Your task to perform on an android device: turn on bluetooth scan Image 0: 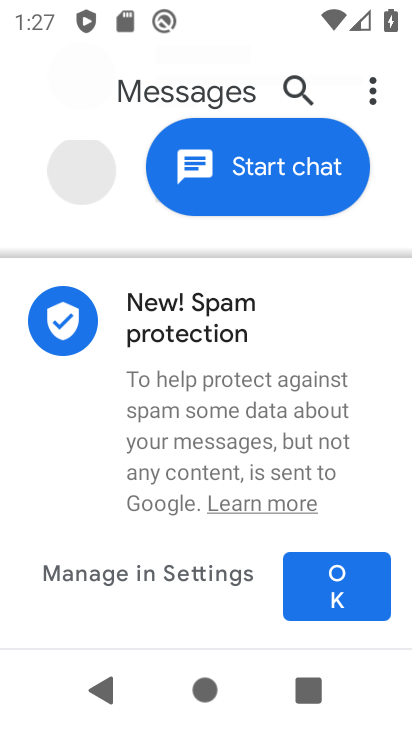
Step 0: press home button
Your task to perform on an android device: turn on bluetooth scan Image 1: 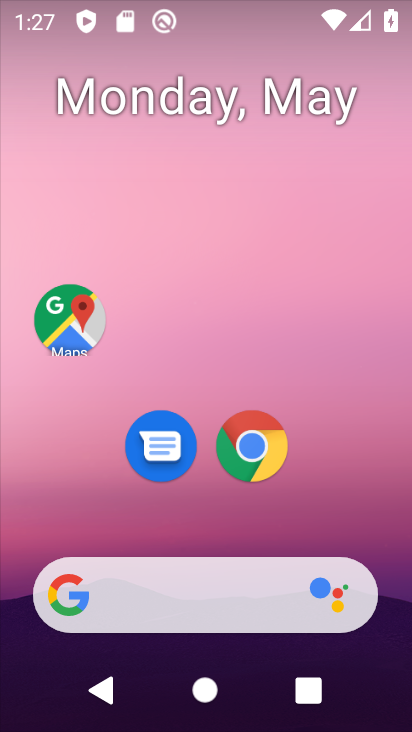
Step 1: drag from (217, 605) to (218, 143)
Your task to perform on an android device: turn on bluetooth scan Image 2: 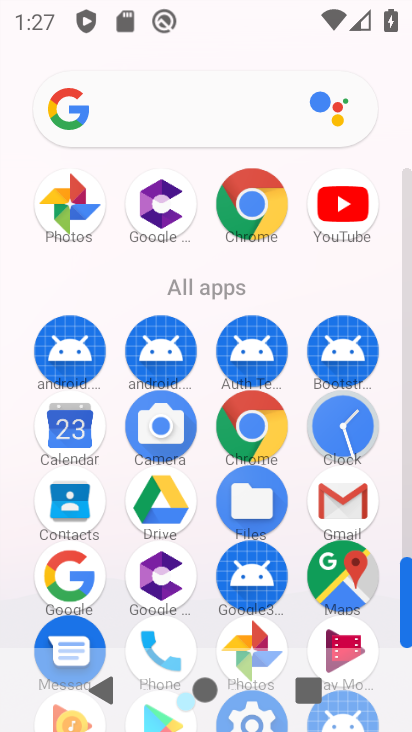
Step 2: drag from (252, 484) to (270, 198)
Your task to perform on an android device: turn on bluetooth scan Image 3: 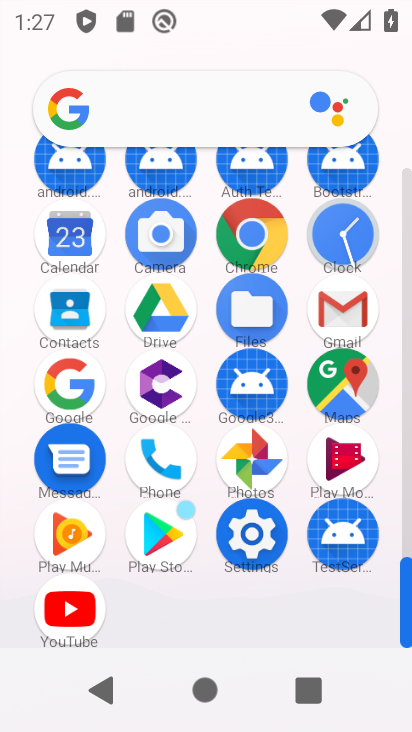
Step 3: click (260, 542)
Your task to perform on an android device: turn on bluetooth scan Image 4: 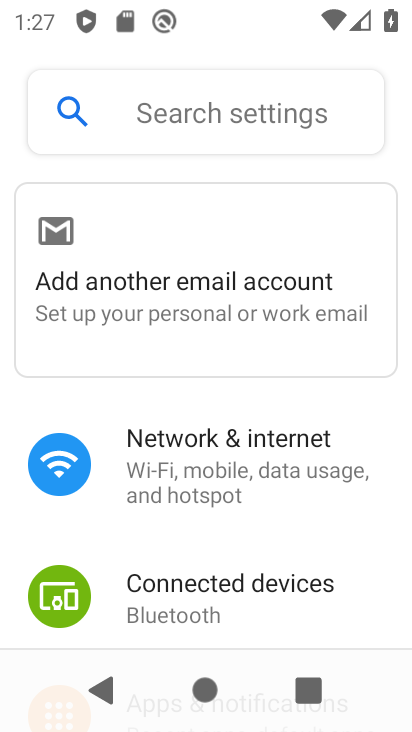
Step 4: drag from (221, 591) to (186, 135)
Your task to perform on an android device: turn on bluetooth scan Image 5: 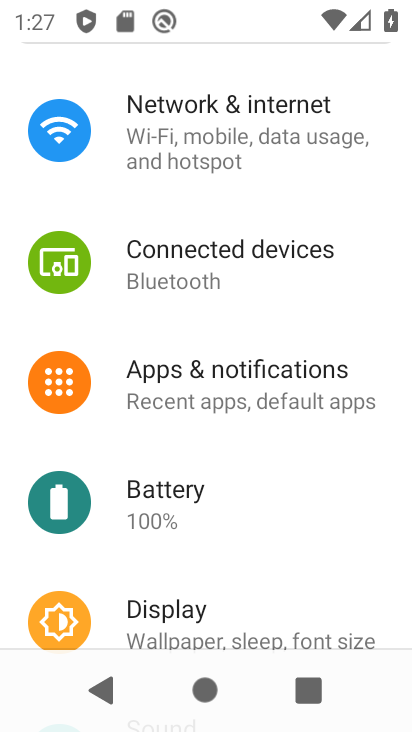
Step 5: drag from (243, 610) to (276, 115)
Your task to perform on an android device: turn on bluetooth scan Image 6: 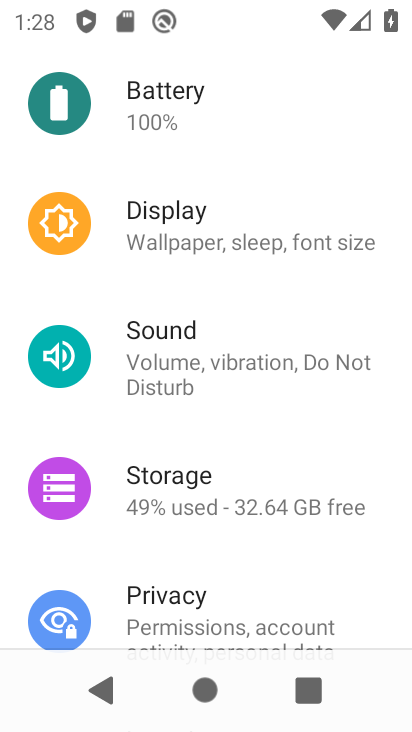
Step 6: drag from (245, 567) to (200, 160)
Your task to perform on an android device: turn on bluetooth scan Image 7: 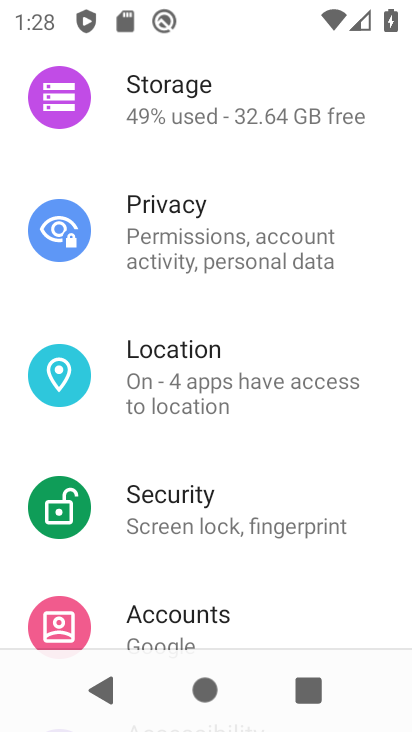
Step 7: click (183, 370)
Your task to perform on an android device: turn on bluetooth scan Image 8: 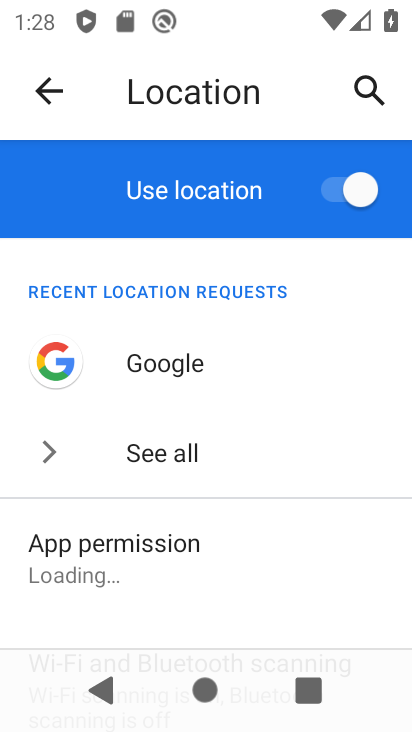
Step 8: drag from (234, 544) to (249, 8)
Your task to perform on an android device: turn on bluetooth scan Image 9: 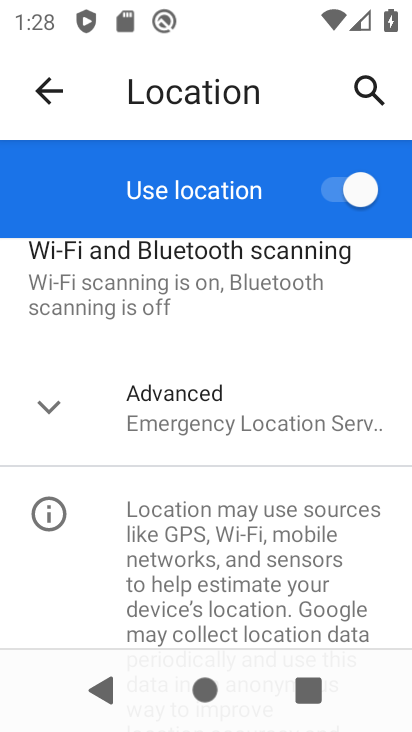
Step 9: click (212, 434)
Your task to perform on an android device: turn on bluetooth scan Image 10: 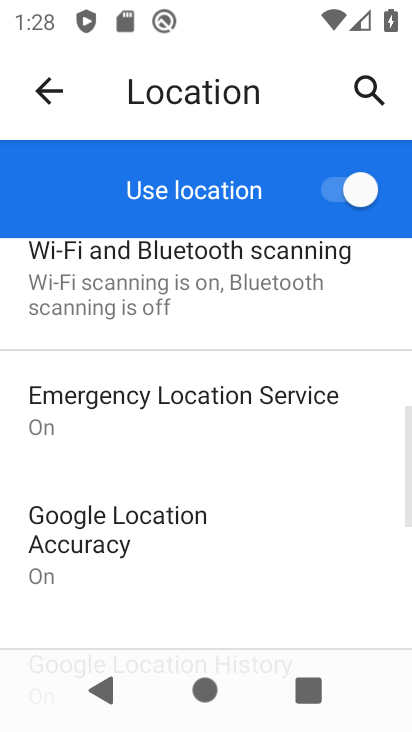
Step 10: drag from (251, 559) to (273, 142)
Your task to perform on an android device: turn on bluetooth scan Image 11: 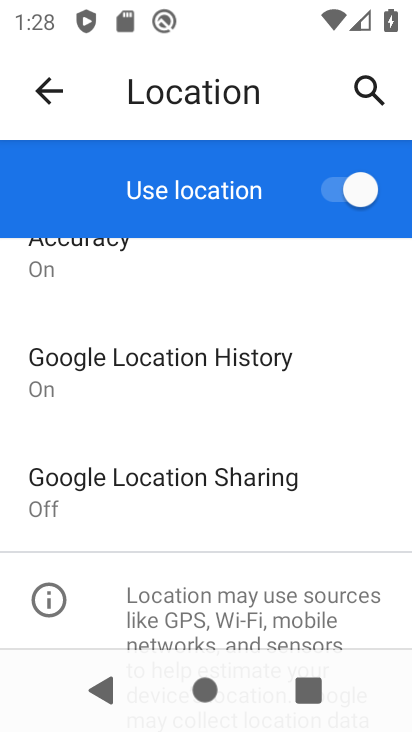
Step 11: drag from (232, 284) to (30, 718)
Your task to perform on an android device: turn on bluetooth scan Image 12: 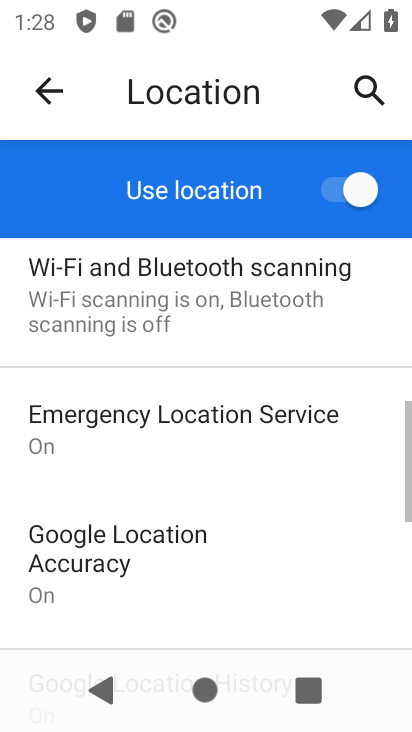
Step 12: click (232, 306)
Your task to perform on an android device: turn on bluetooth scan Image 13: 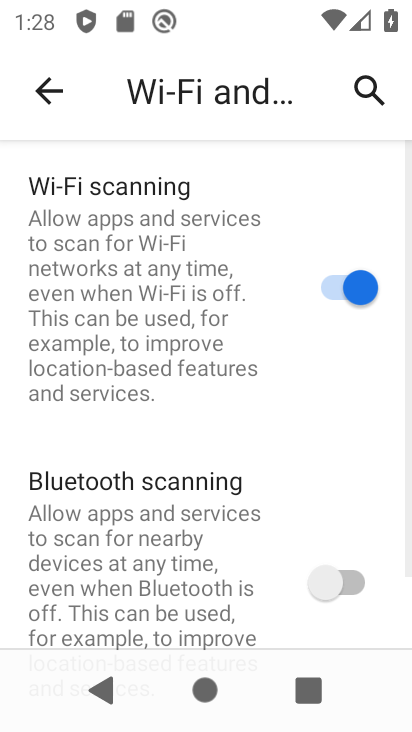
Step 13: click (349, 580)
Your task to perform on an android device: turn on bluetooth scan Image 14: 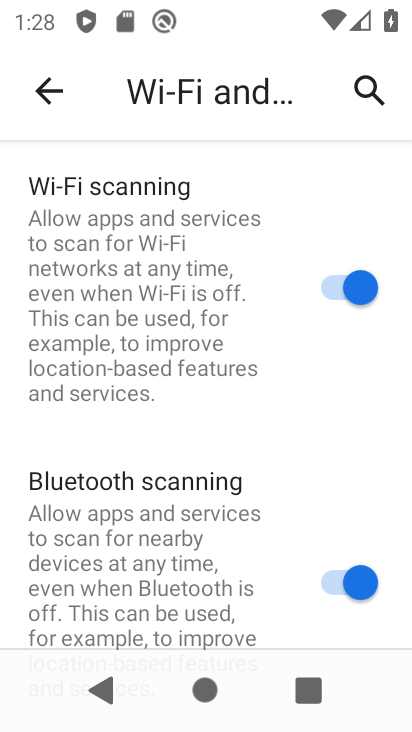
Step 14: task complete